Your task to perform on an android device: turn on airplane mode Image 0: 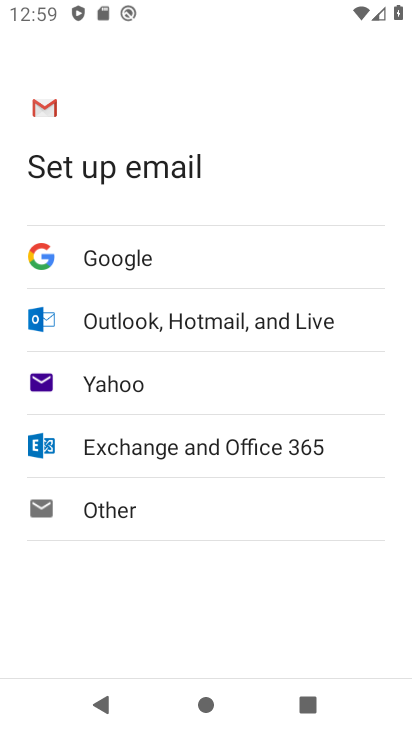
Step 0: press home button
Your task to perform on an android device: turn on airplane mode Image 1: 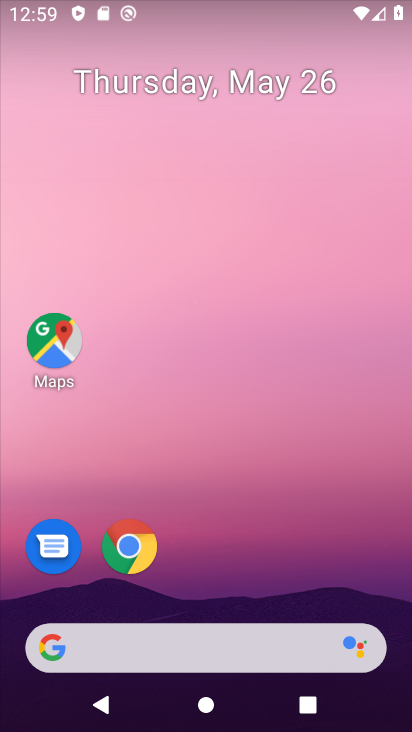
Step 1: drag from (203, 642) to (203, 121)
Your task to perform on an android device: turn on airplane mode Image 2: 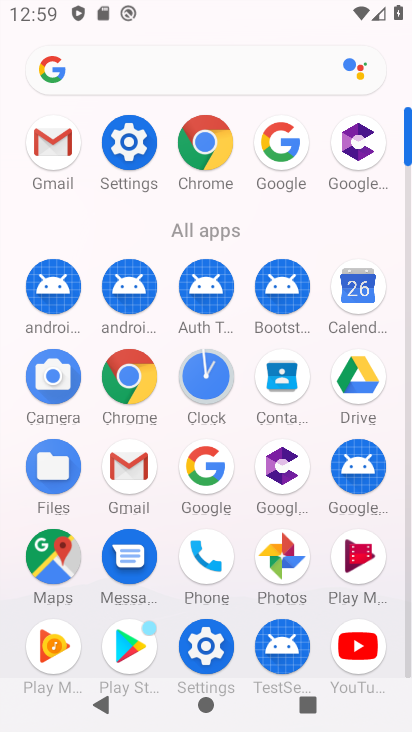
Step 2: click (126, 141)
Your task to perform on an android device: turn on airplane mode Image 3: 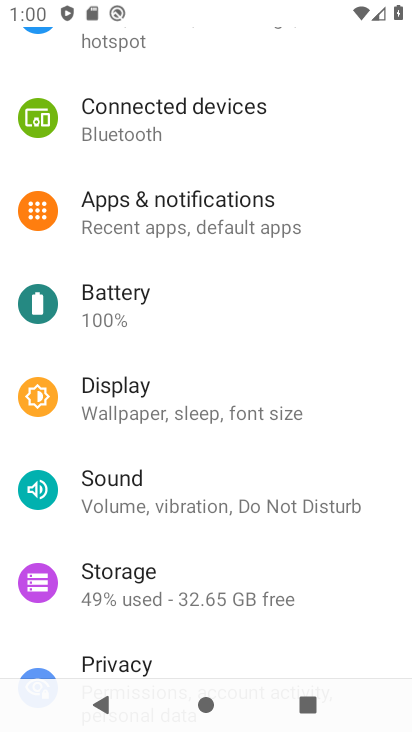
Step 3: drag from (215, 306) to (241, 659)
Your task to perform on an android device: turn on airplane mode Image 4: 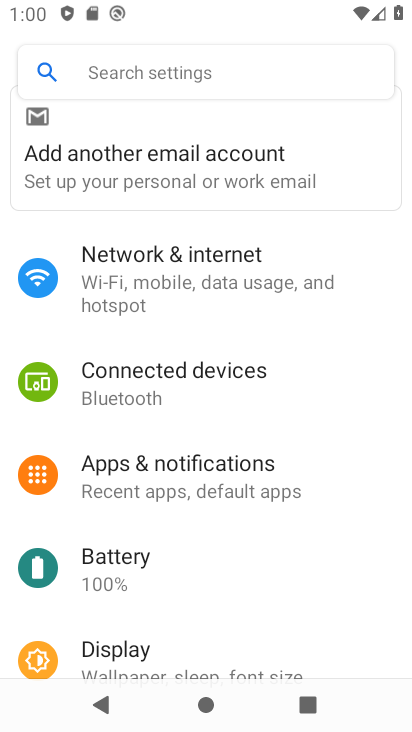
Step 4: click (179, 264)
Your task to perform on an android device: turn on airplane mode Image 5: 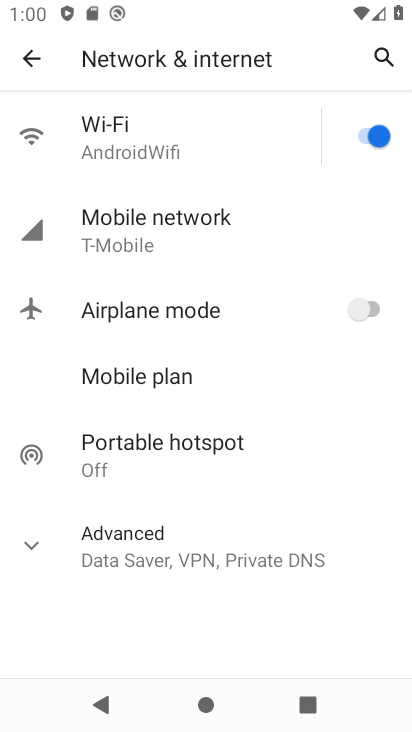
Step 5: click (359, 308)
Your task to perform on an android device: turn on airplane mode Image 6: 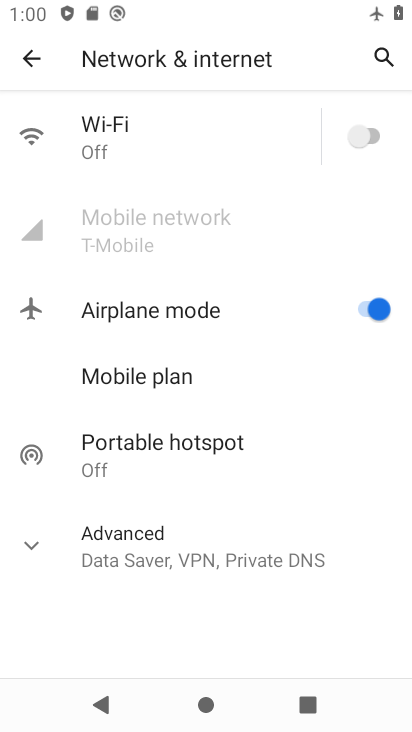
Step 6: task complete